Your task to perform on an android device: turn on improve location accuracy Image 0: 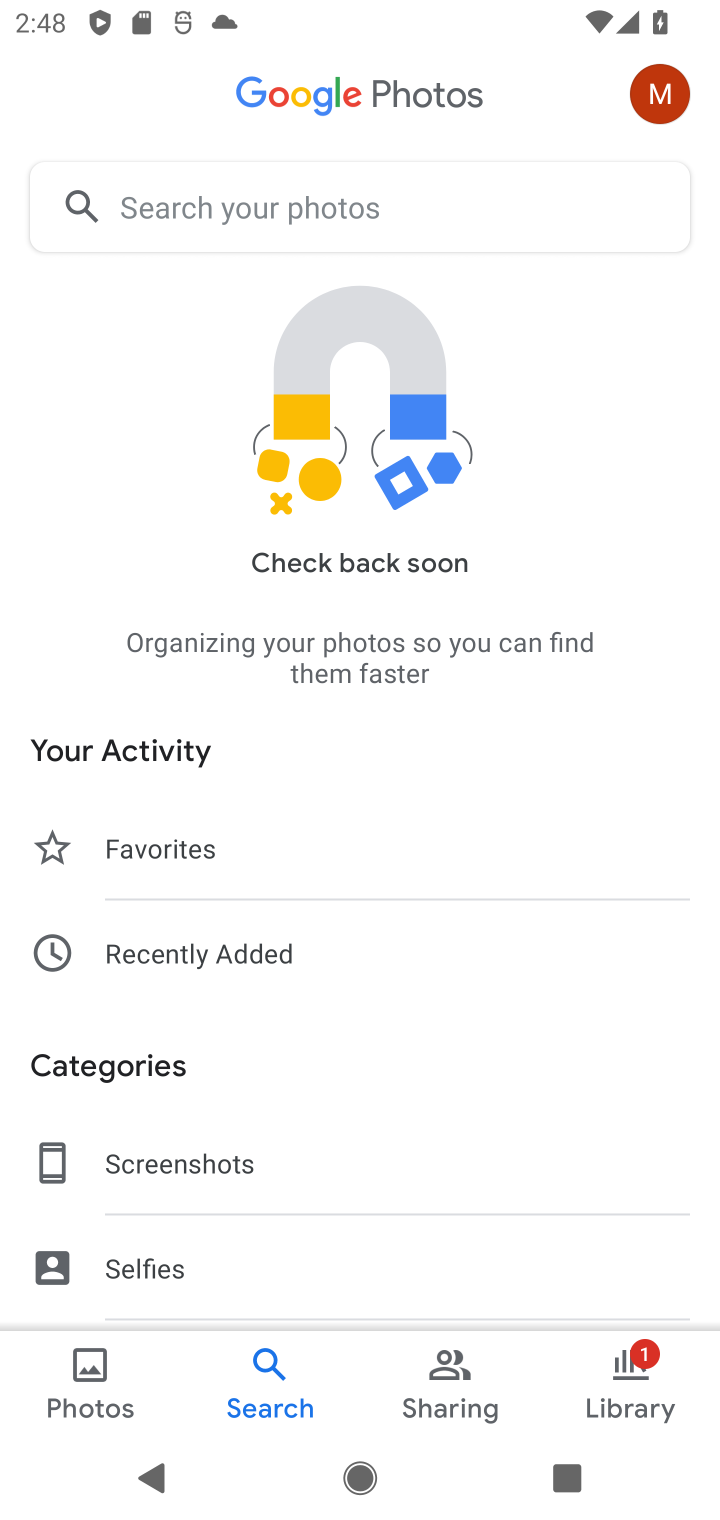
Step 0: press home button
Your task to perform on an android device: turn on improve location accuracy Image 1: 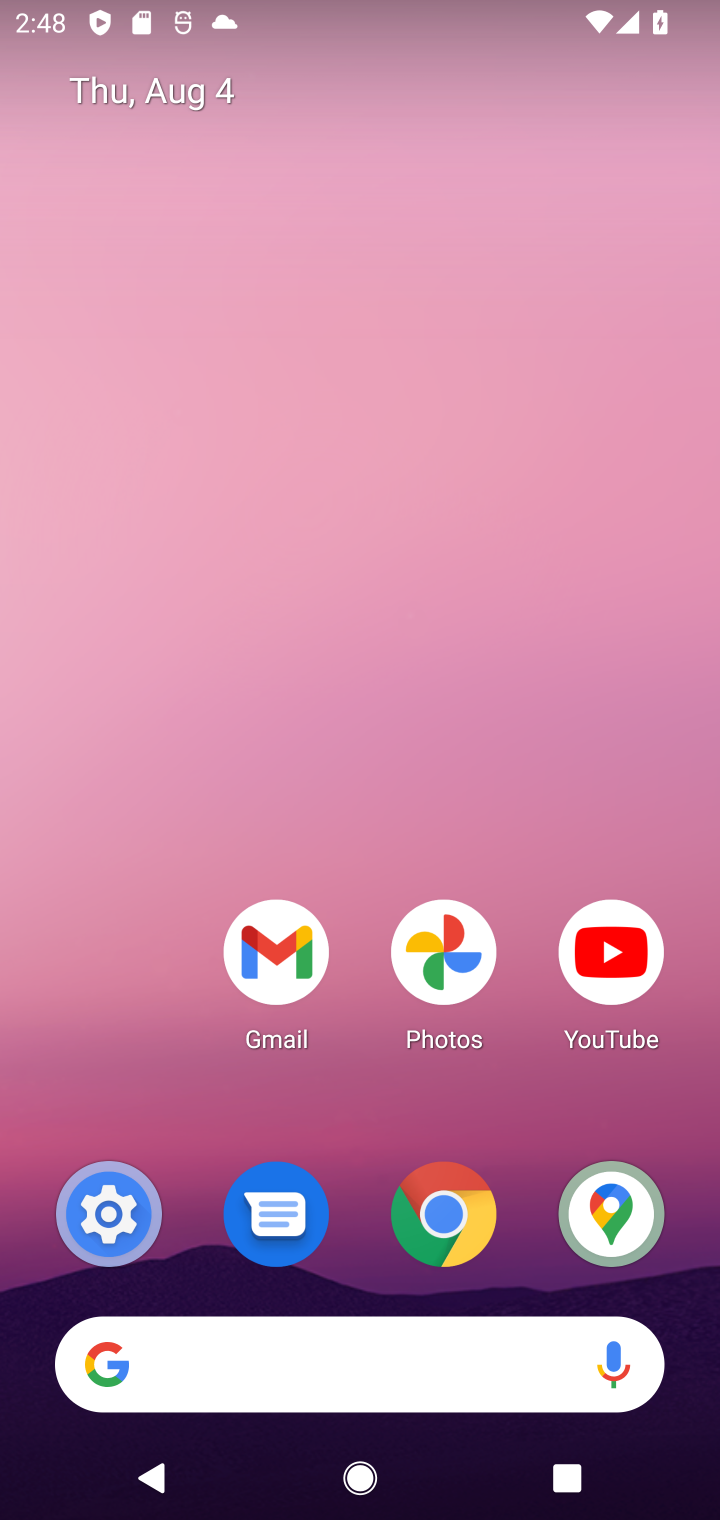
Step 1: drag from (47, 1095) to (205, 14)
Your task to perform on an android device: turn on improve location accuracy Image 2: 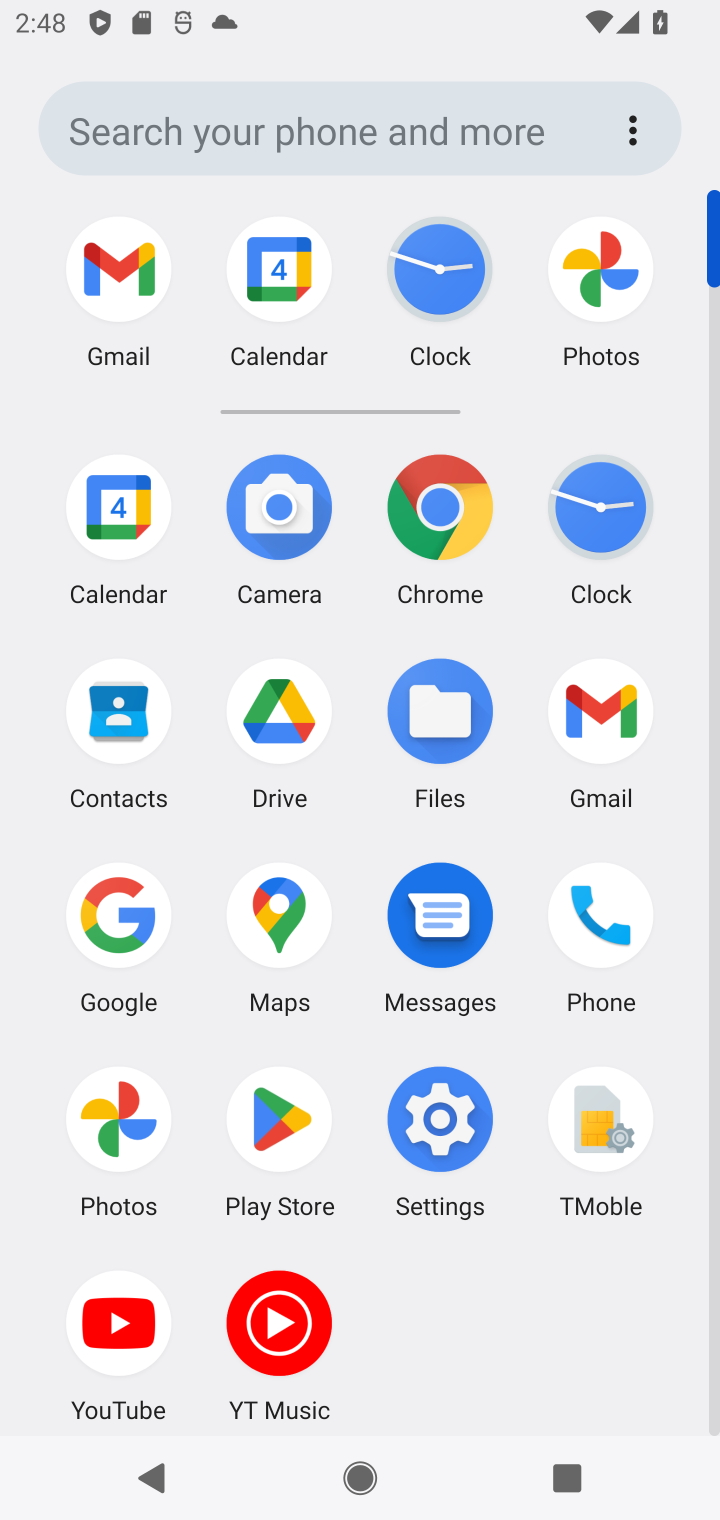
Step 2: click (450, 1144)
Your task to perform on an android device: turn on improve location accuracy Image 3: 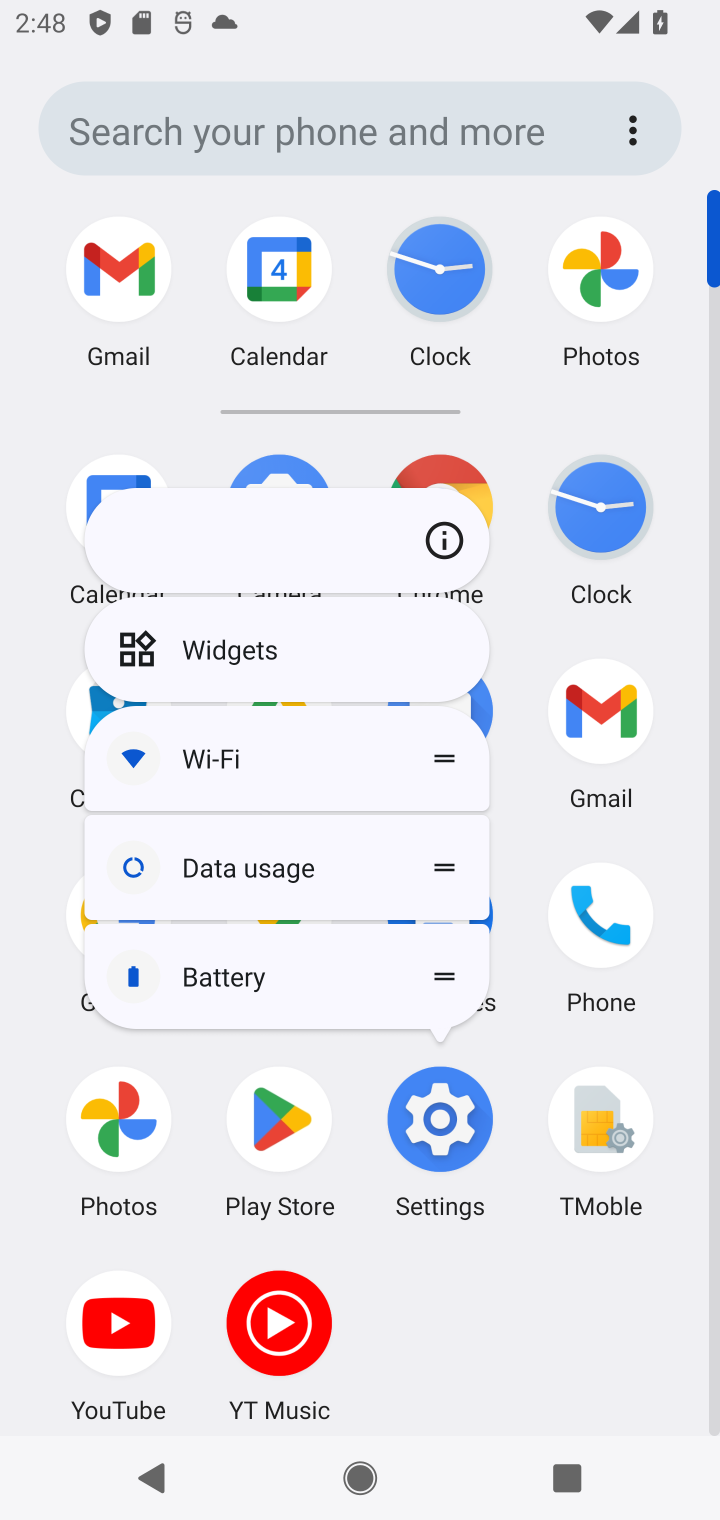
Step 3: click (450, 1144)
Your task to perform on an android device: turn on improve location accuracy Image 4: 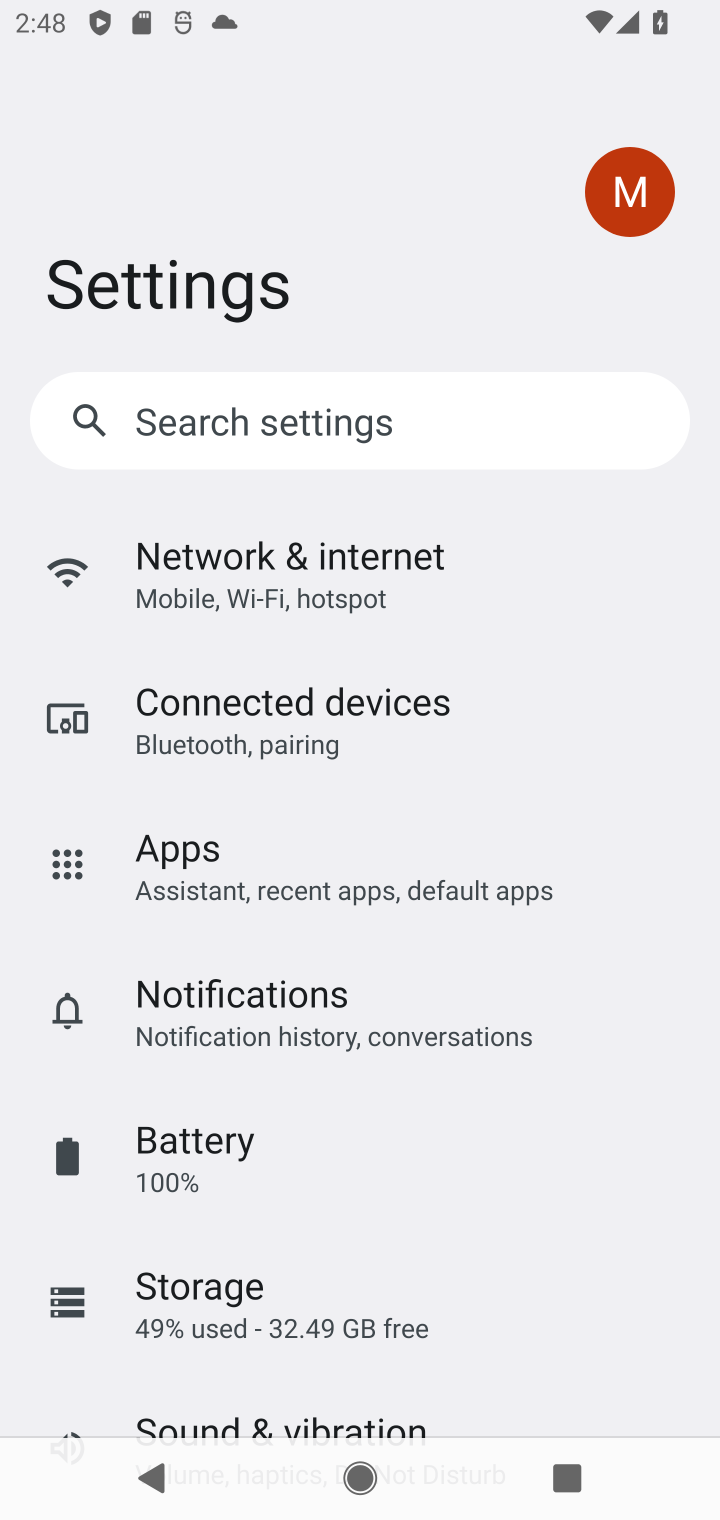
Step 4: drag from (341, 1358) to (227, 327)
Your task to perform on an android device: turn on improve location accuracy Image 5: 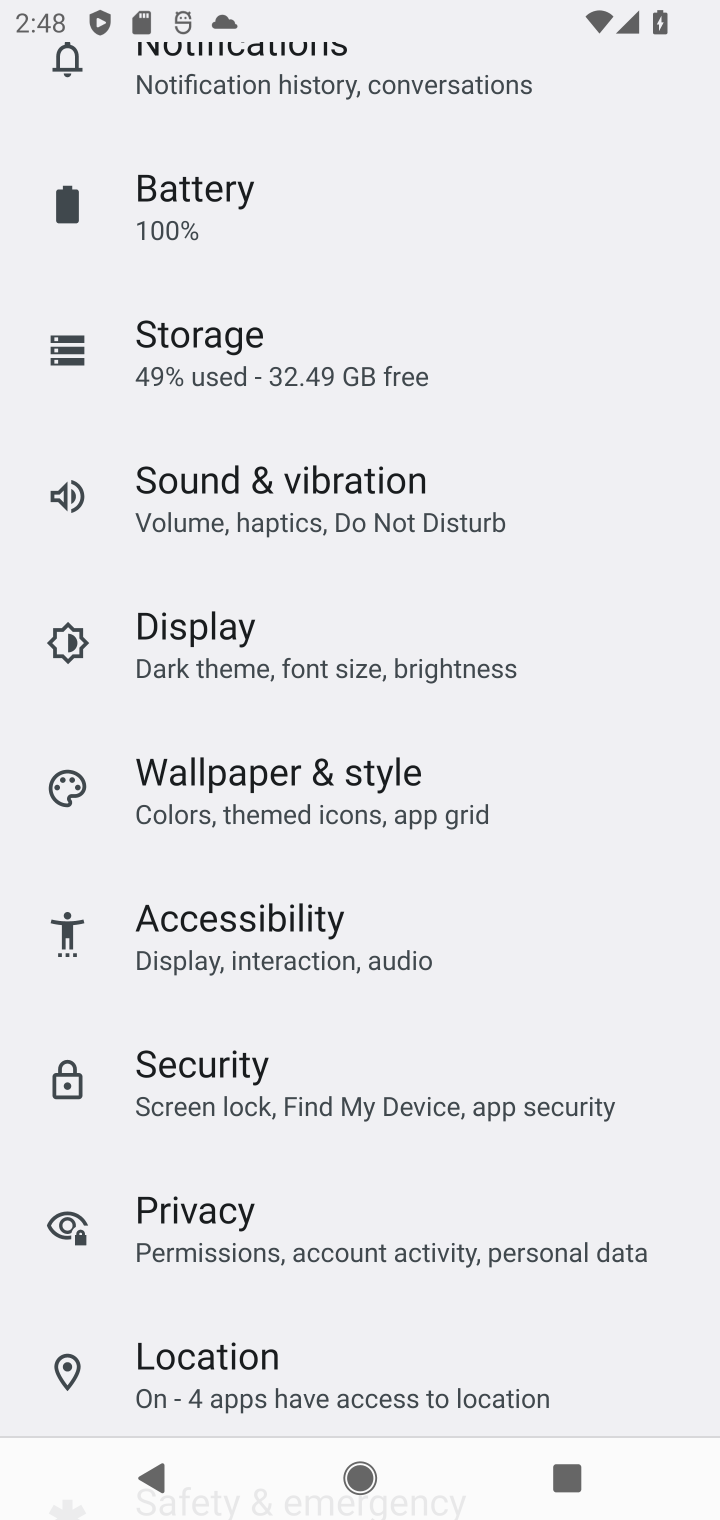
Step 5: click (325, 1375)
Your task to perform on an android device: turn on improve location accuracy Image 6: 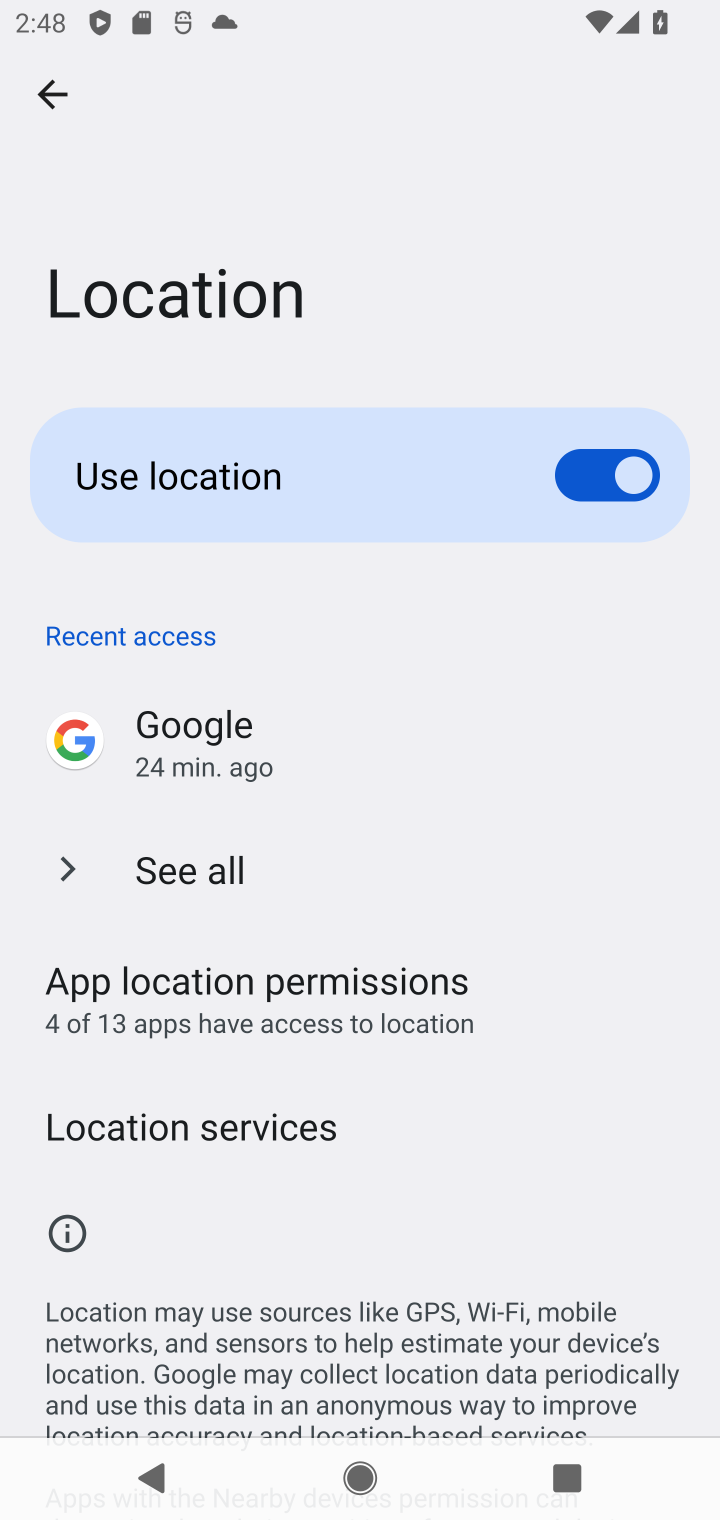
Step 6: click (156, 1129)
Your task to perform on an android device: turn on improve location accuracy Image 7: 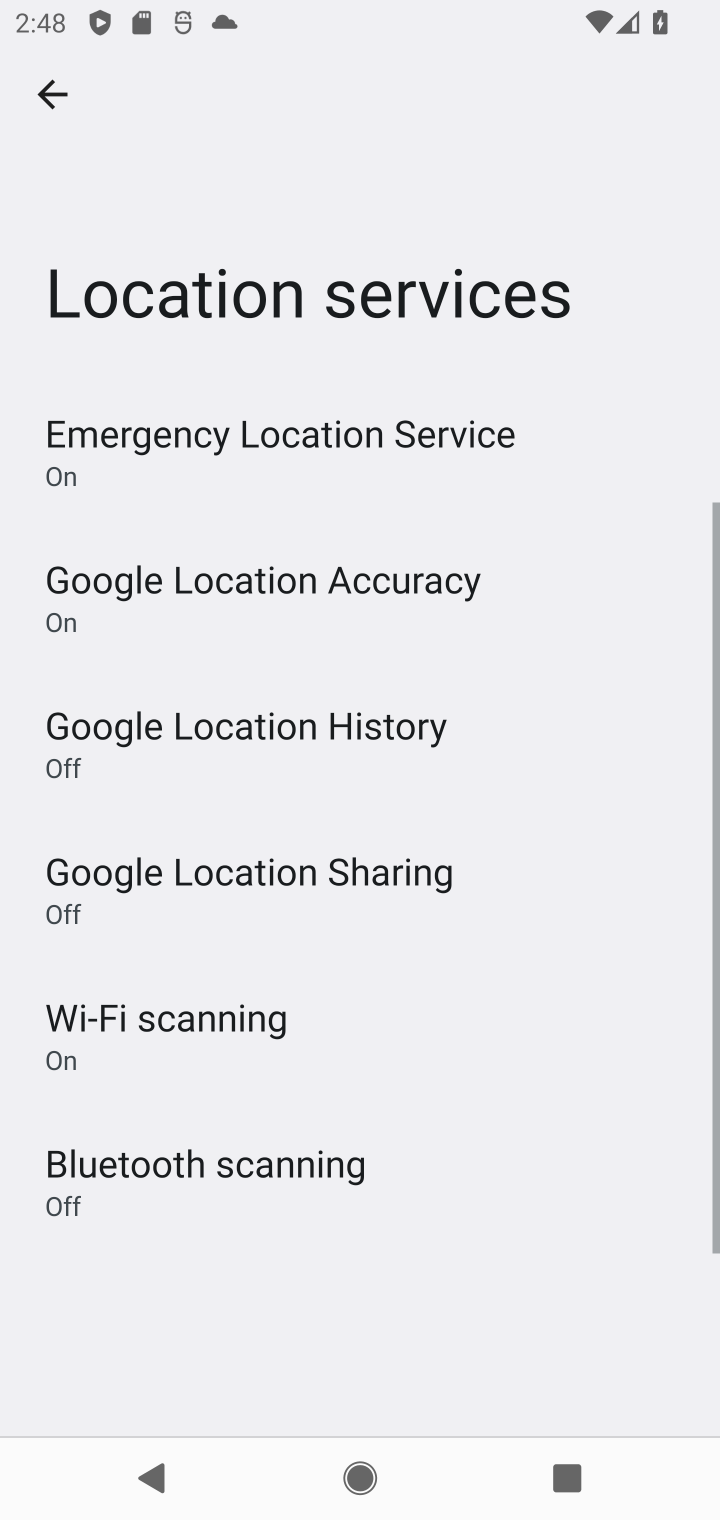
Step 7: click (345, 587)
Your task to perform on an android device: turn on improve location accuracy Image 8: 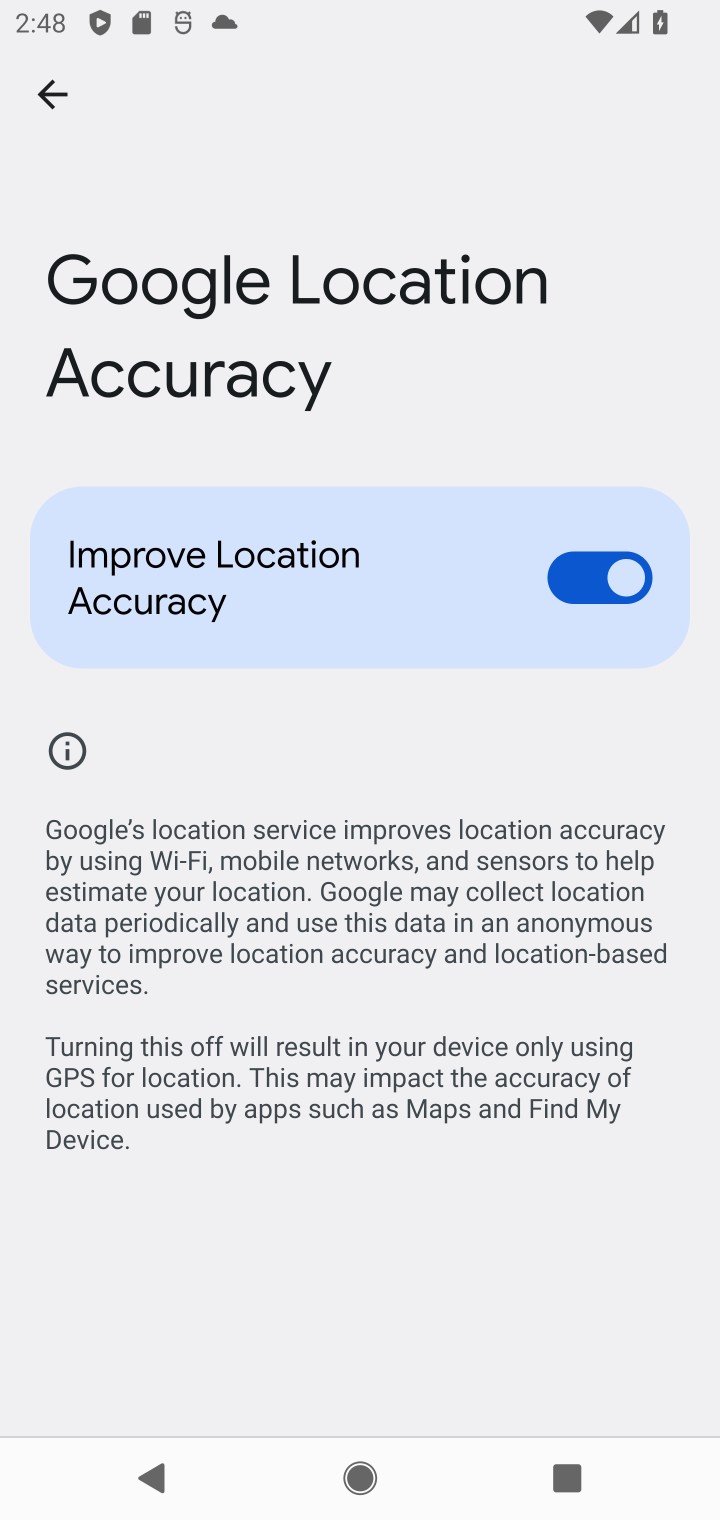
Step 8: task complete